Your task to perform on an android device: Go to Amazon Image 0: 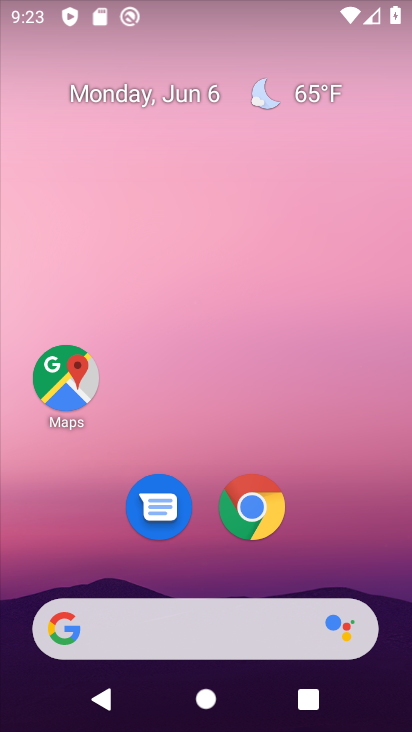
Step 0: click (234, 499)
Your task to perform on an android device: Go to Amazon Image 1: 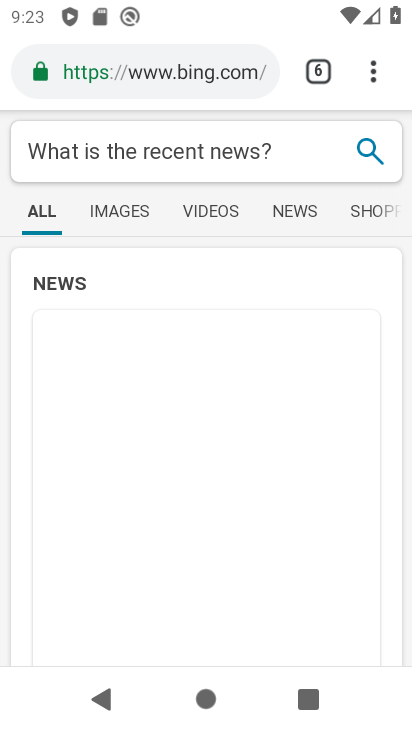
Step 1: click (375, 74)
Your task to perform on an android device: Go to Amazon Image 2: 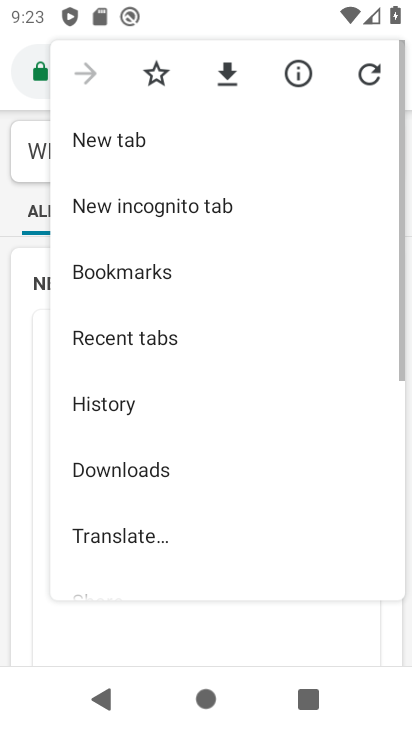
Step 2: click (140, 126)
Your task to perform on an android device: Go to Amazon Image 3: 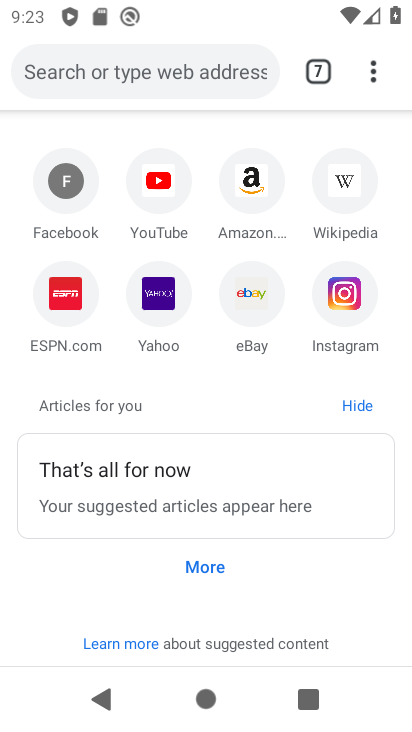
Step 3: click (241, 169)
Your task to perform on an android device: Go to Amazon Image 4: 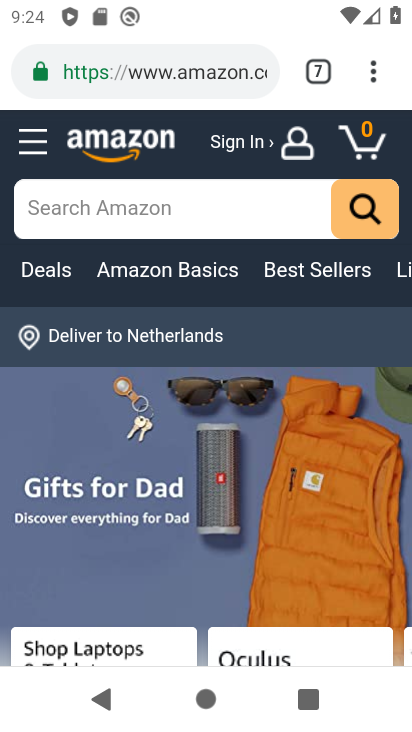
Step 4: task complete